Your task to perform on an android device: Open the Play Movies app and select the watchlist tab. Image 0: 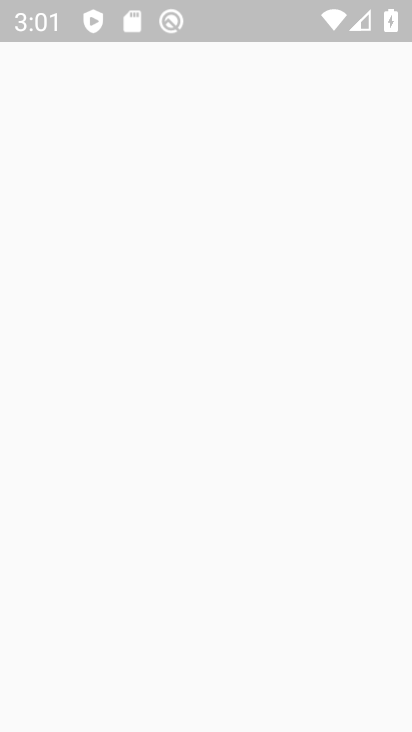
Step 0: press back button
Your task to perform on an android device: Open the Play Movies app and select the watchlist tab. Image 1: 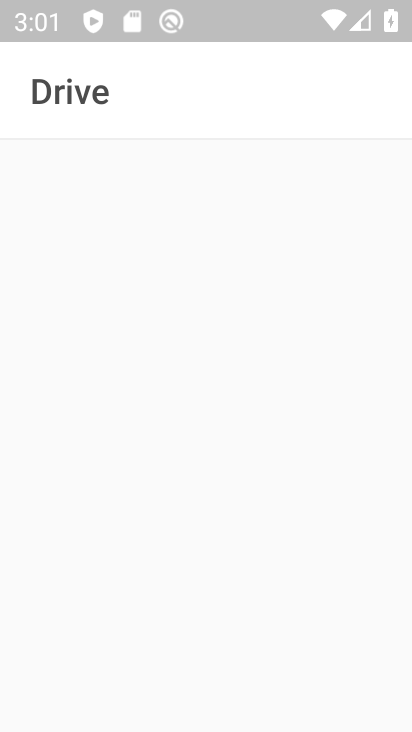
Step 1: press home button
Your task to perform on an android device: Open the Play Movies app and select the watchlist tab. Image 2: 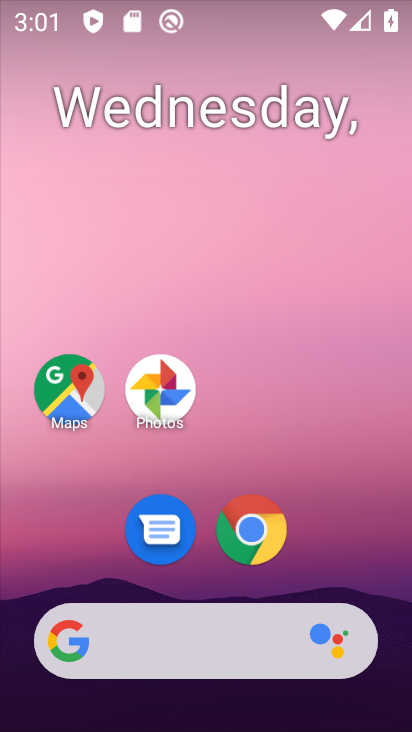
Step 2: drag from (167, 584) to (215, 131)
Your task to perform on an android device: Open the Play Movies app and select the watchlist tab. Image 3: 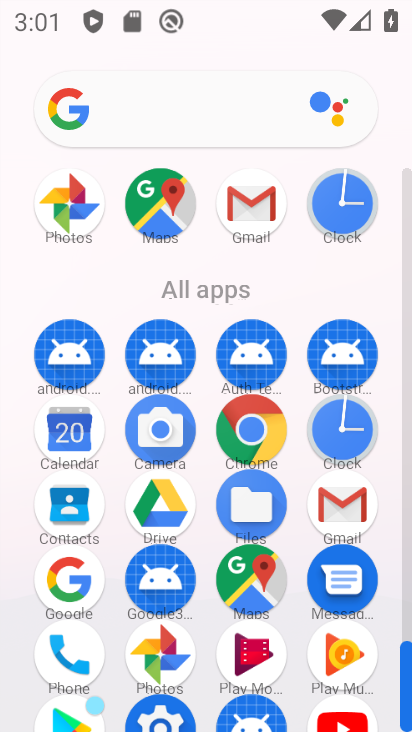
Step 3: click (253, 664)
Your task to perform on an android device: Open the Play Movies app and select the watchlist tab. Image 4: 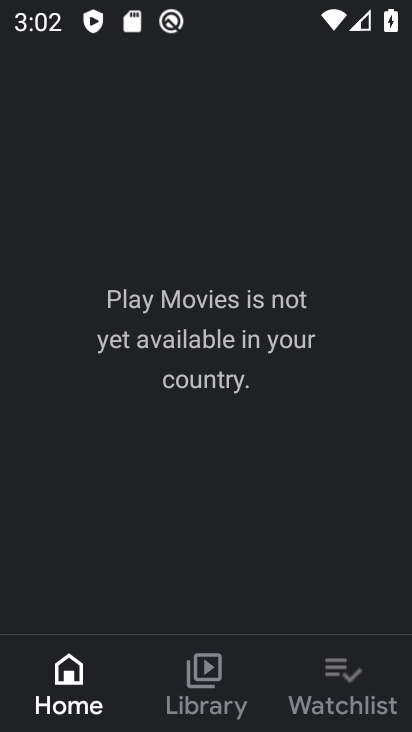
Step 4: click (360, 682)
Your task to perform on an android device: Open the Play Movies app and select the watchlist tab. Image 5: 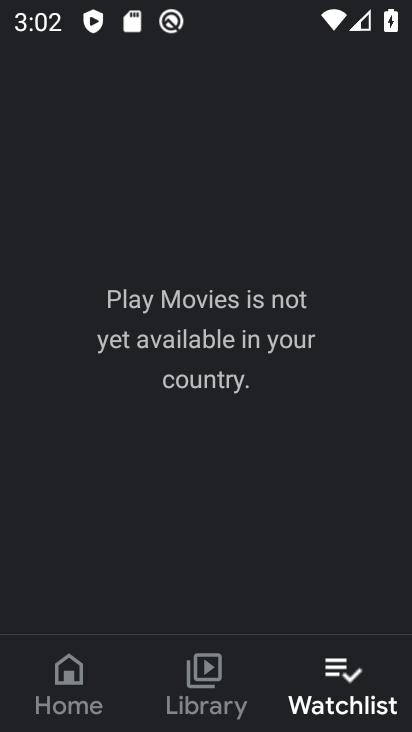
Step 5: task complete